Your task to perform on an android device: What's the weather going to be this weekend? Image 0: 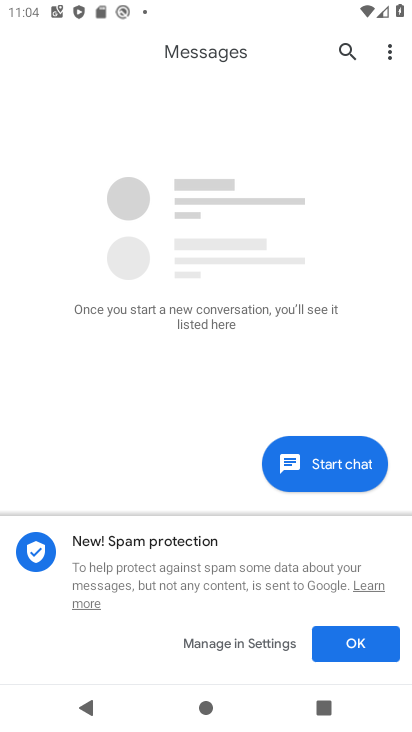
Step 0: press home button
Your task to perform on an android device: What's the weather going to be this weekend? Image 1: 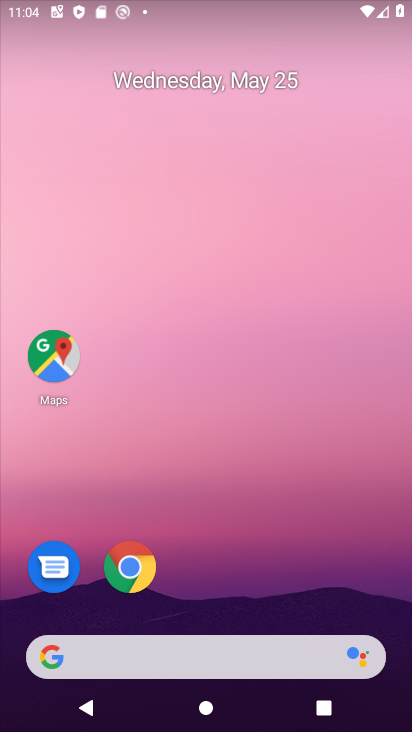
Step 1: click (226, 658)
Your task to perform on an android device: What's the weather going to be this weekend? Image 2: 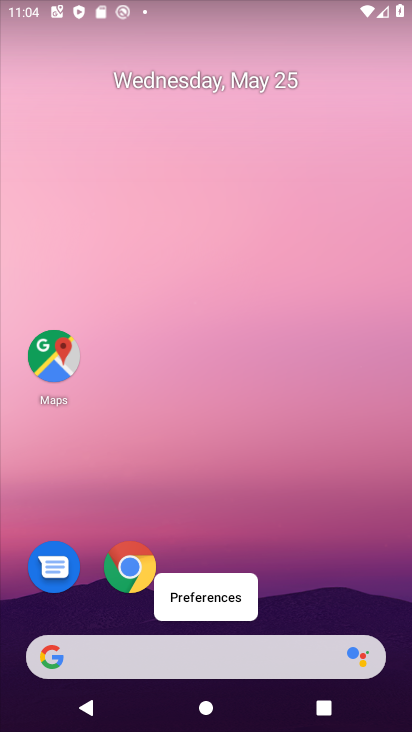
Step 2: click (225, 658)
Your task to perform on an android device: What's the weather going to be this weekend? Image 3: 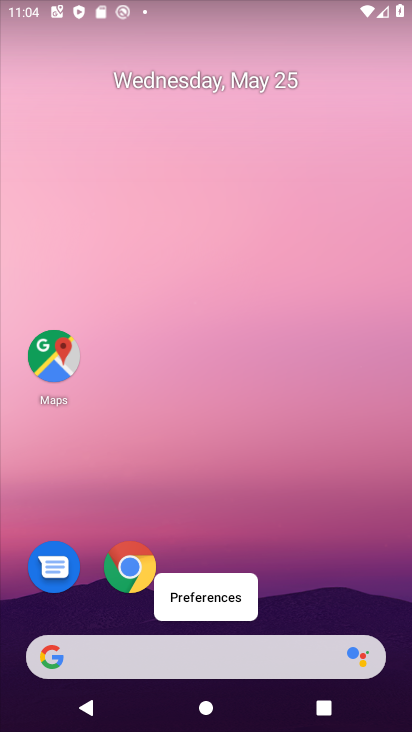
Step 3: click (130, 671)
Your task to perform on an android device: What's the weather going to be this weekend? Image 4: 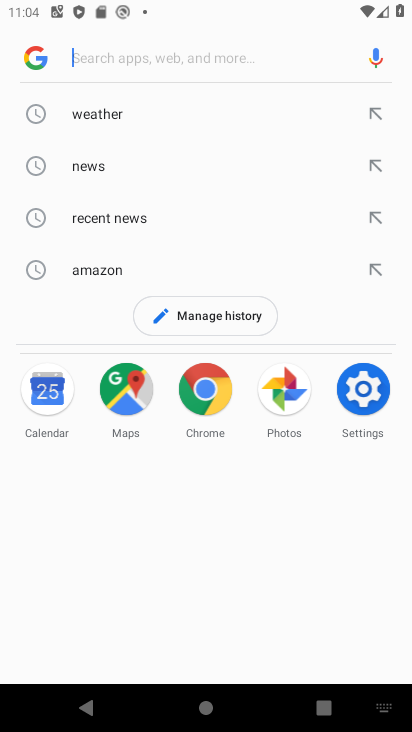
Step 4: click (91, 113)
Your task to perform on an android device: What's the weather going to be this weekend? Image 5: 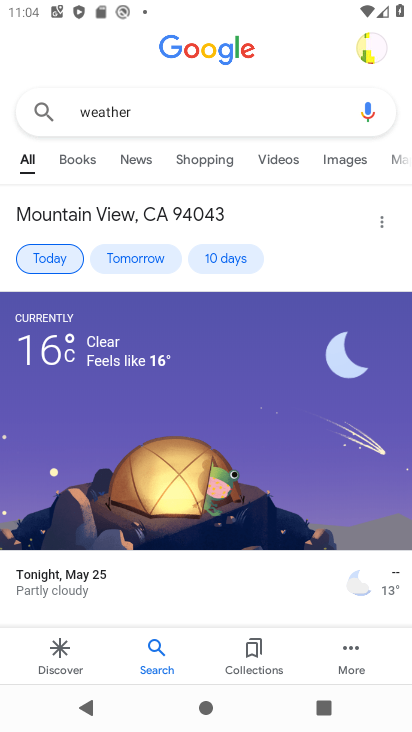
Step 5: drag from (217, 513) to (217, 401)
Your task to perform on an android device: What's the weather going to be this weekend? Image 6: 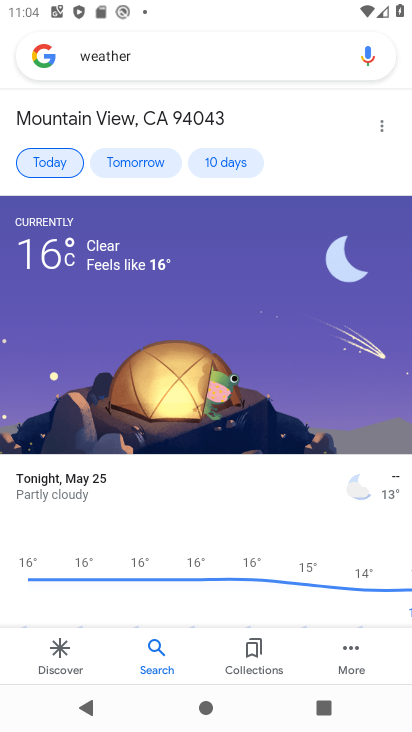
Step 6: click (222, 158)
Your task to perform on an android device: What's the weather going to be this weekend? Image 7: 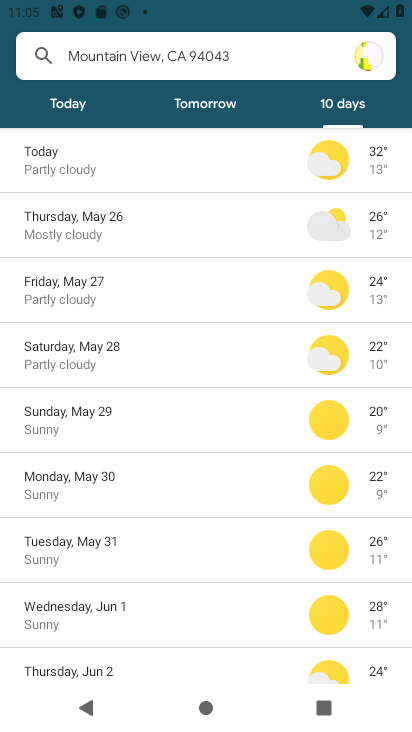
Step 7: task complete